Your task to perform on an android device: change timer sound Image 0: 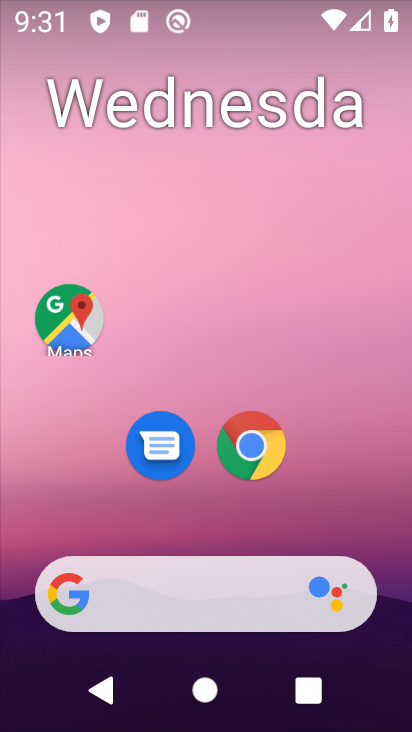
Step 0: drag from (197, 515) to (300, 9)
Your task to perform on an android device: change timer sound Image 1: 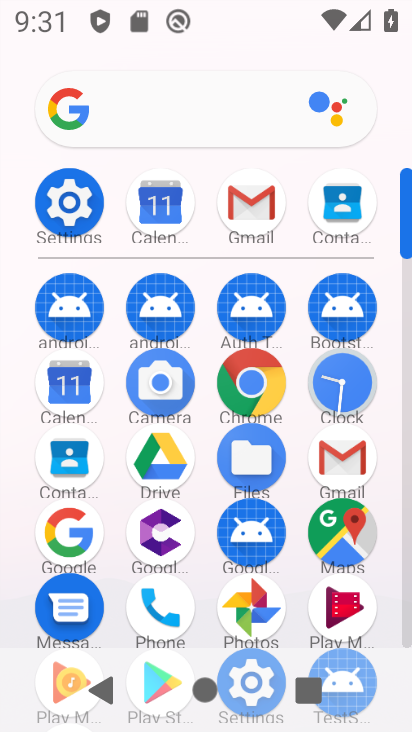
Step 1: click (79, 190)
Your task to perform on an android device: change timer sound Image 2: 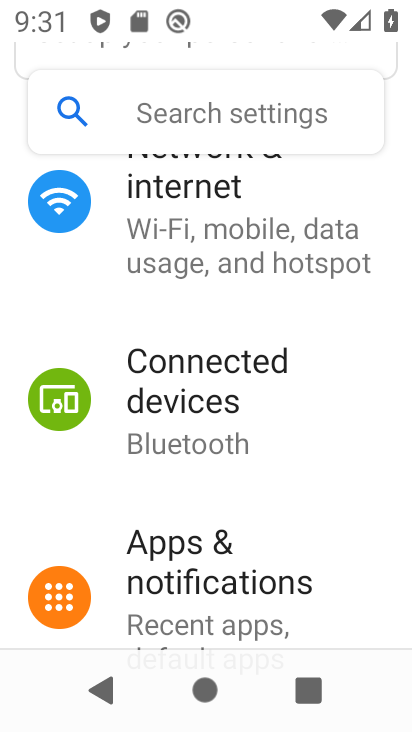
Step 2: drag from (219, 560) to (322, 42)
Your task to perform on an android device: change timer sound Image 3: 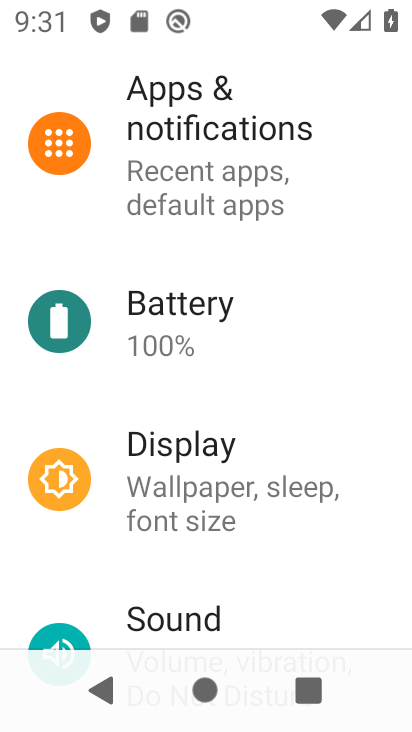
Step 3: click (185, 610)
Your task to perform on an android device: change timer sound Image 4: 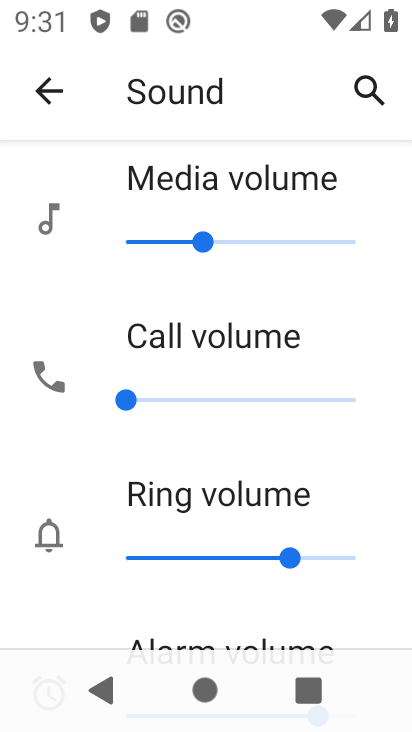
Step 4: task complete